Your task to perform on an android device: turn on priority inbox in the gmail app Image 0: 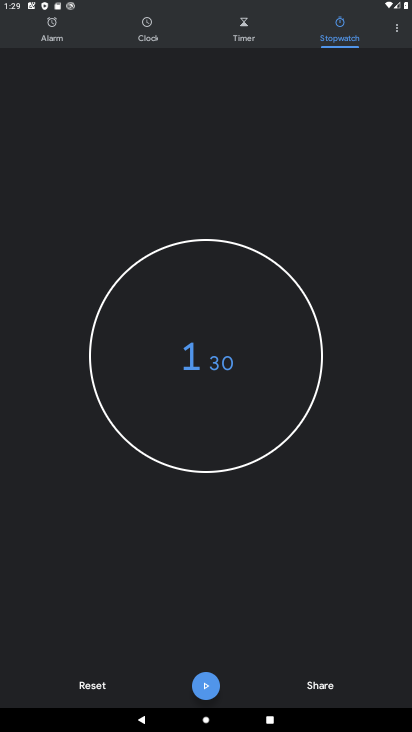
Step 0: press home button
Your task to perform on an android device: turn on priority inbox in the gmail app Image 1: 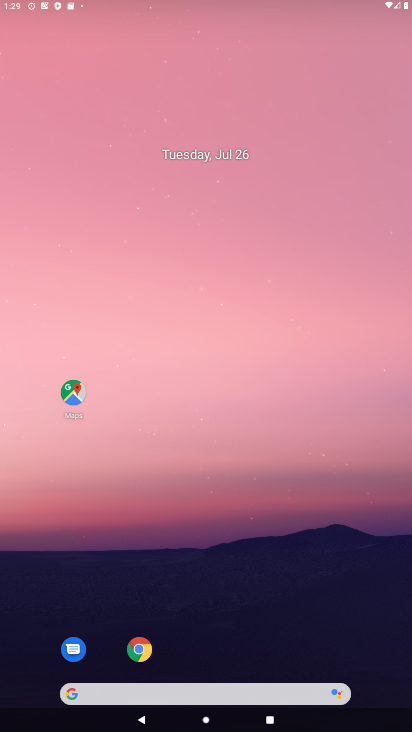
Step 1: drag from (353, 654) to (162, 46)
Your task to perform on an android device: turn on priority inbox in the gmail app Image 2: 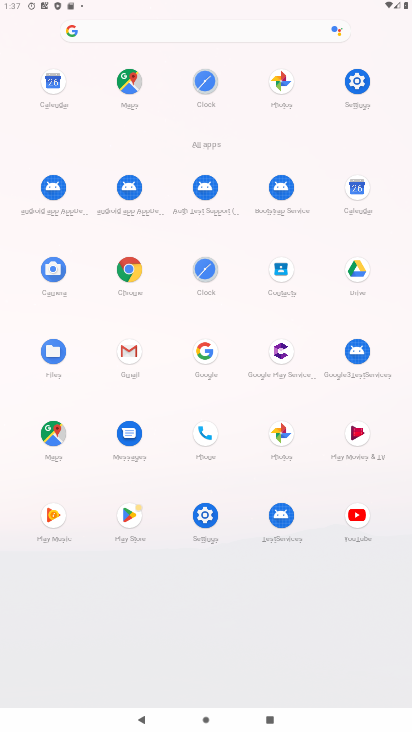
Step 2: click (130, 372)
Your task to perform on an android device: turn on priority inbox in the gmail app Image 3: 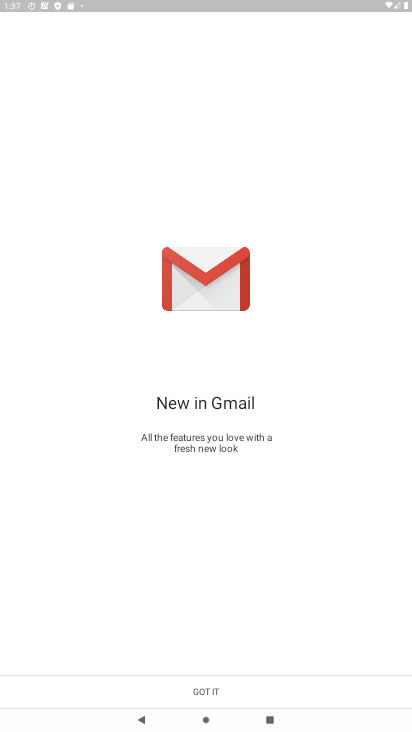
Step 3: click (154, 698)
Your task to perform on an android device: turn on priority inbox in the gmail app Image 4: 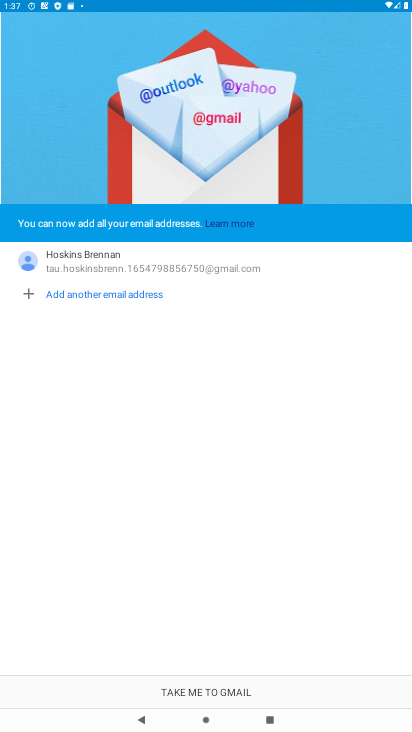
Step 4: click (206, 690)
Your task to perform on an android device: turn on priority inbox in the gmail app Image 5: 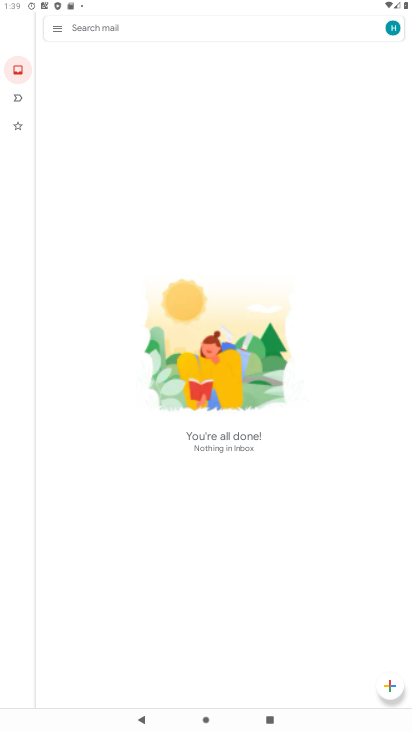
Step 5: click (56, 33)
Your task to perform on an android device: turn on priority inbox in the gmail app Image 6: 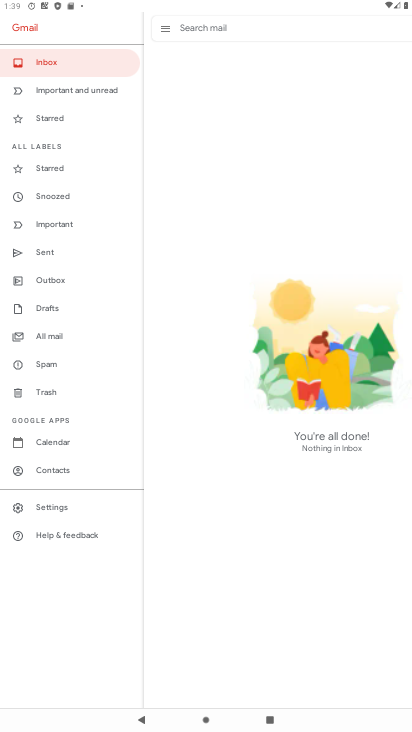
Step 6: click (50, 503)
Your task to perform on an android device: turn on priority inbox in the gmail app Image 7: 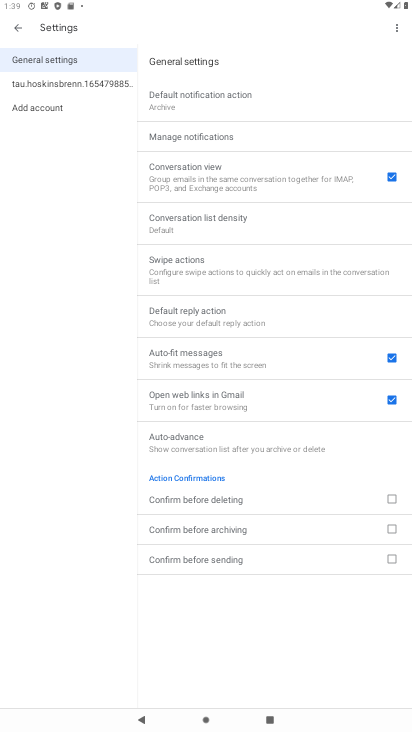
Step 7: click (47, 85)
Your task to perform on an android device: turn on priority inbox in the gmail app Image 8: 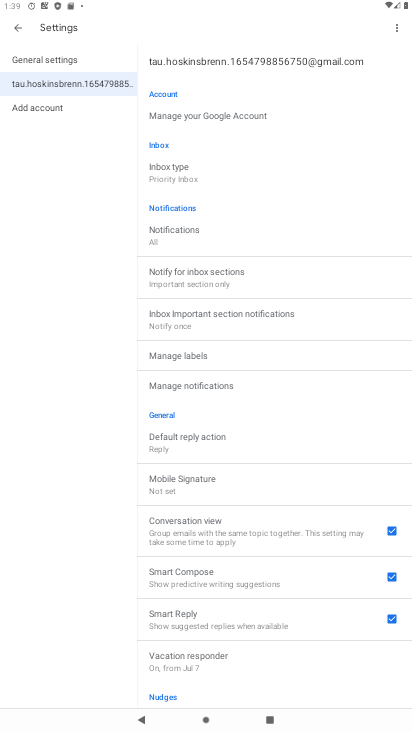
Step 8: click (179, 178)
Your task to perform on an android device: turn on priority inbox in the gmail app Image 9: 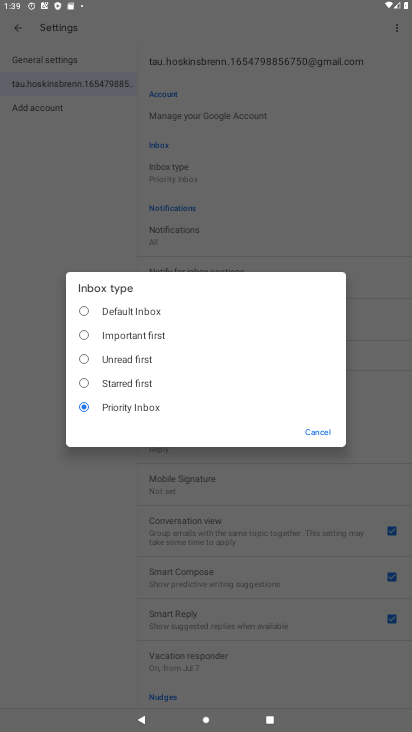
Step 9: task complete